Your task to perform on an android device: Open the web browser Image 0: 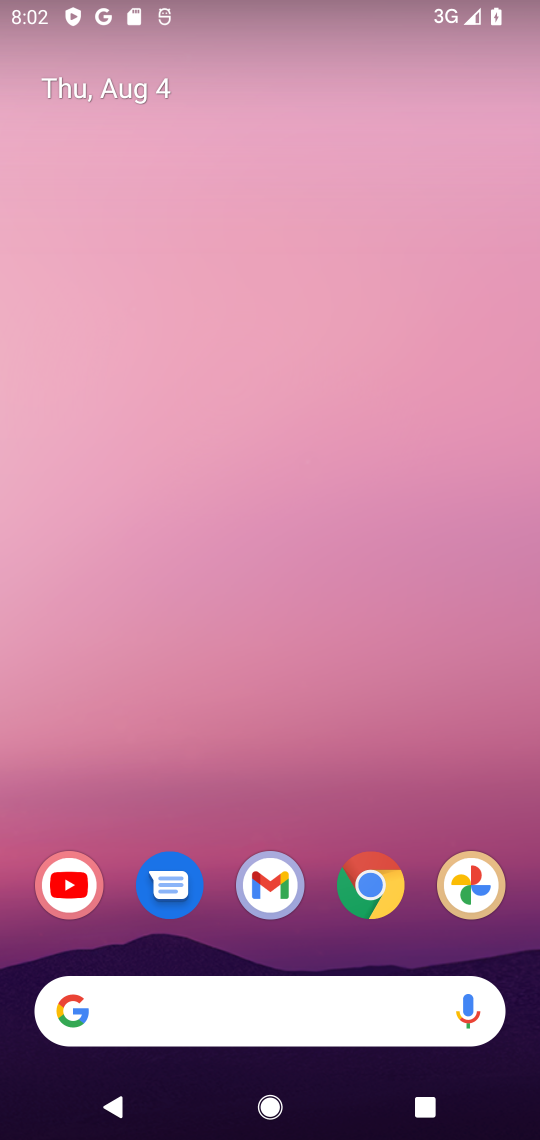
Step 0: press home button
Your task to perform on an android device: Open the web browser Image 1: 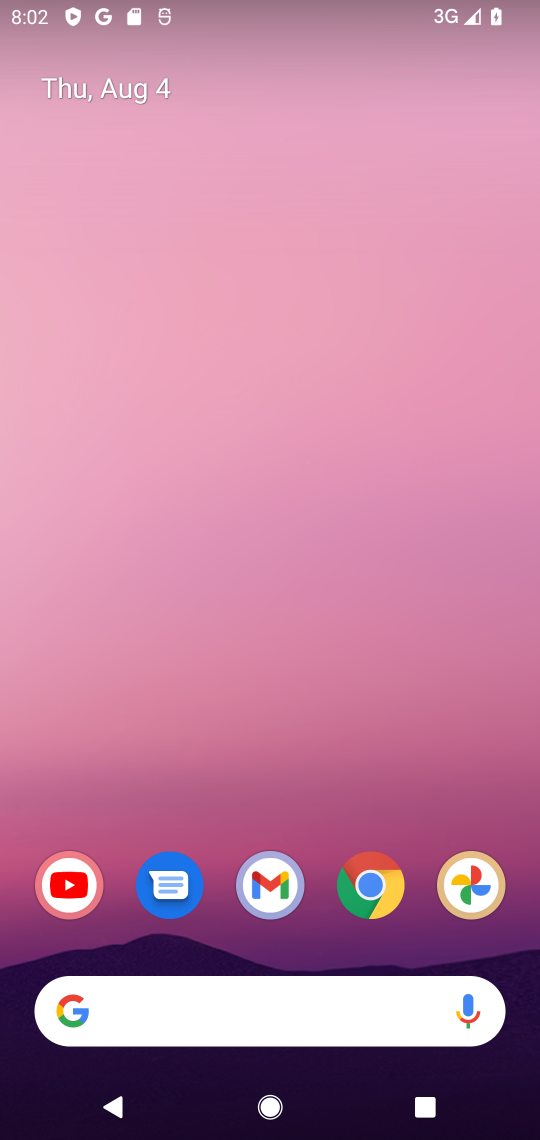
Step 1: click (371, 880)
Your task to perform on an android device: Open the web browser Image 2: 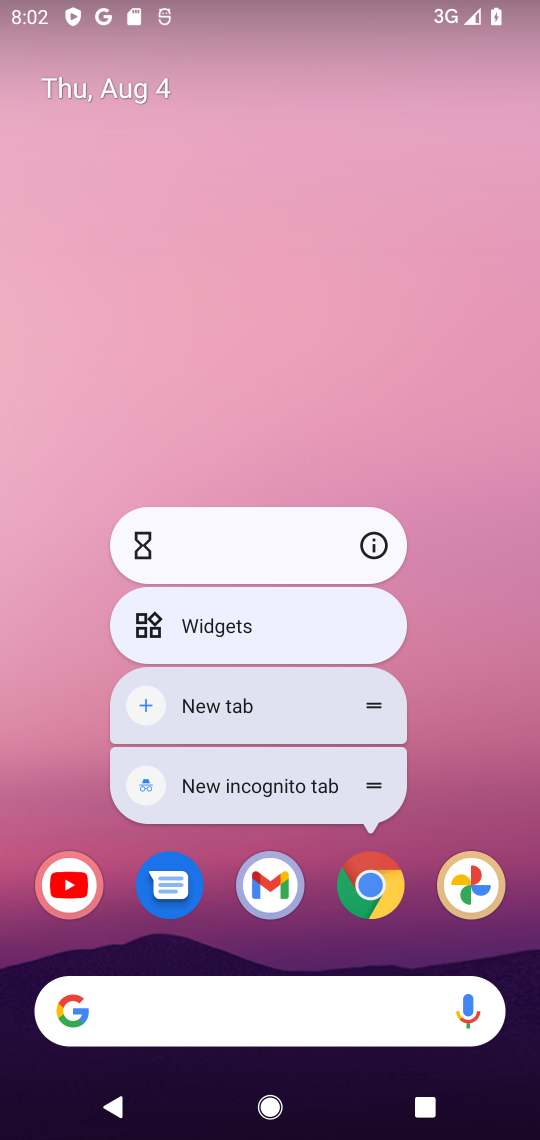
Step 2: click (364, 875)
Your task to perform on an android device: Open the web browser Image 3: 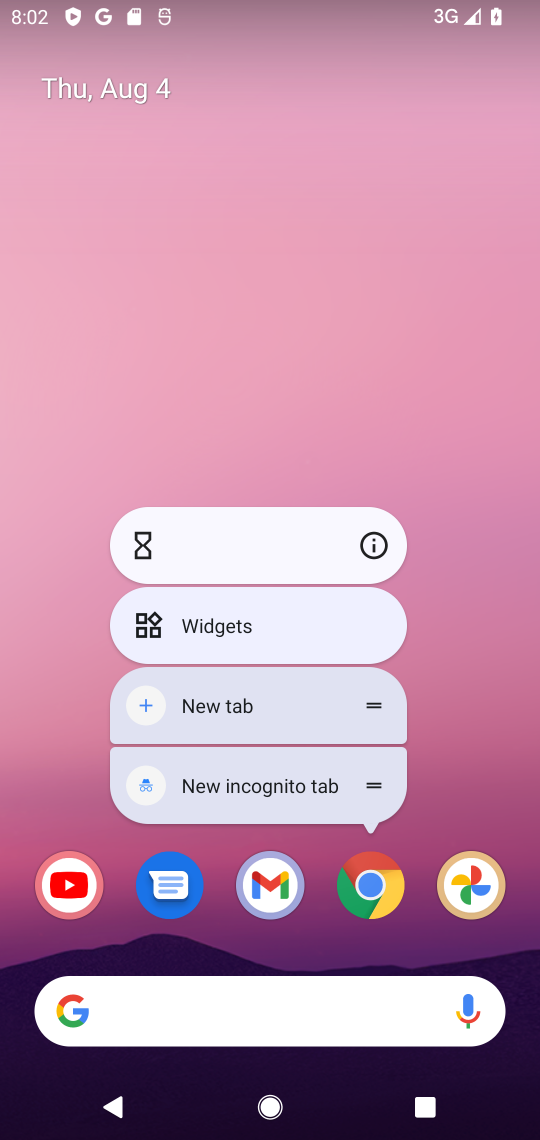
Step 3: click (365, 875)
Your task to perform on an android device: Open the web browser Image 4: 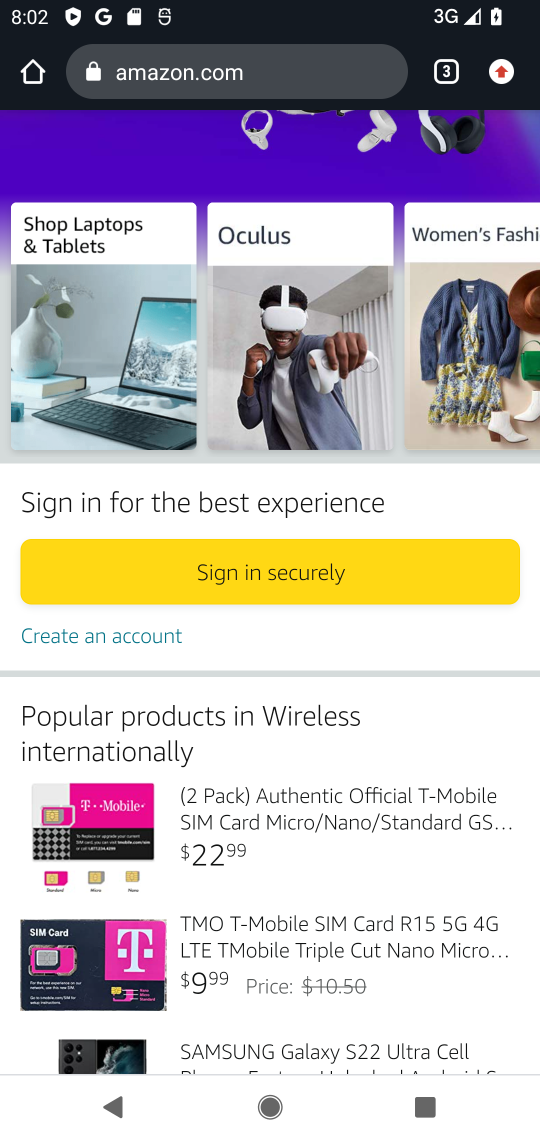
Step 4: click (459, 63)
Your task to perform on an android device: Open the web browser Image 5: 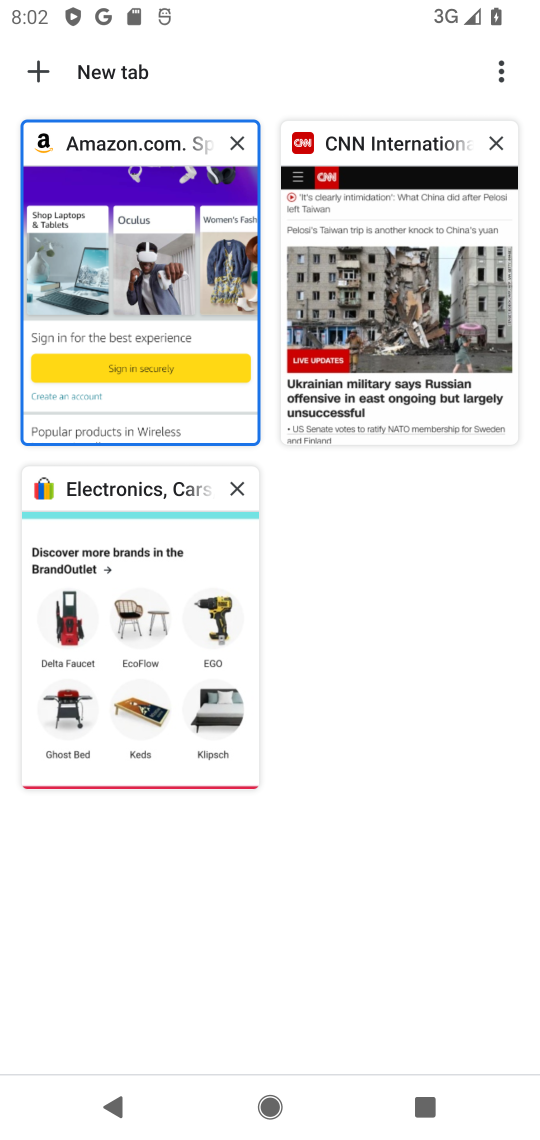
Step 5: click (51, 78)
Your task to perform on an android device: Open the web browser Image 6: 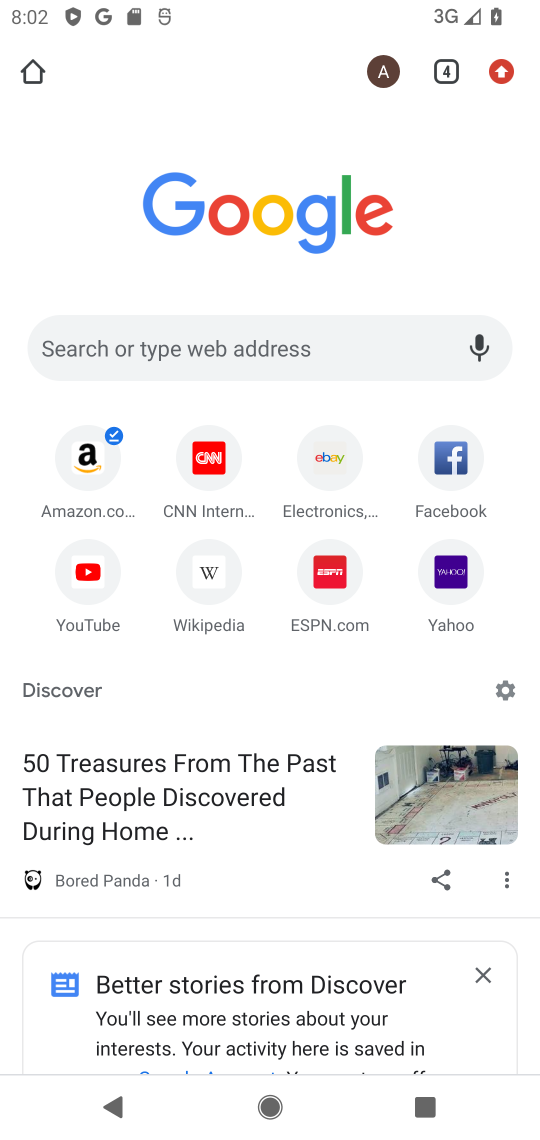
Step 6: task complete